Your task to perform on an android device: turn on sleep mode Image 0: 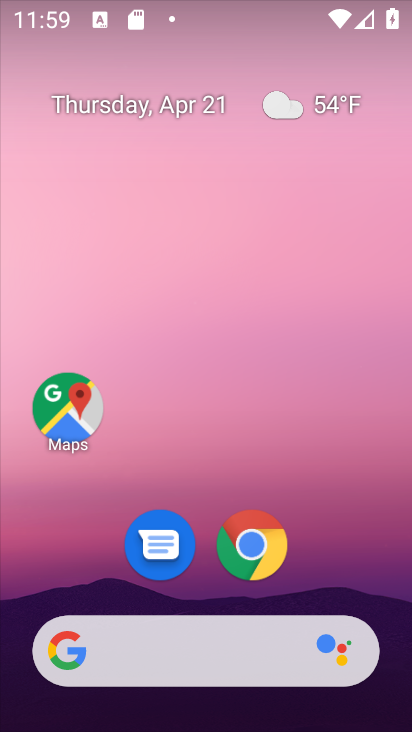
Step 0: drag from (286, 480) to (261, 84)
Your task to perform on an android device: turn on sleep mode Image 1: 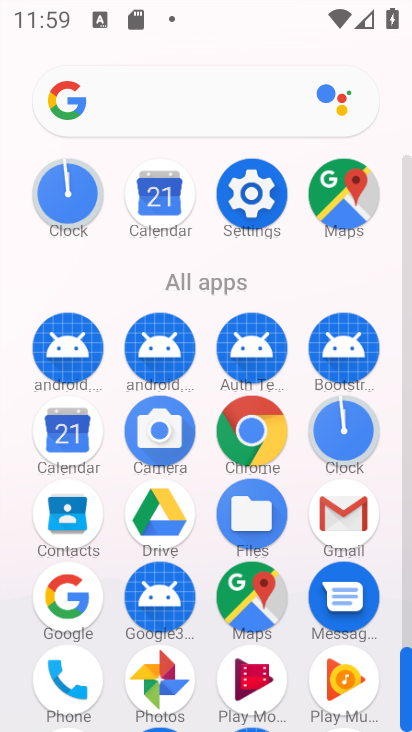
Step 1: click (267, 207)
Your task to perform on an android device: turn on sleep mode Image 2: 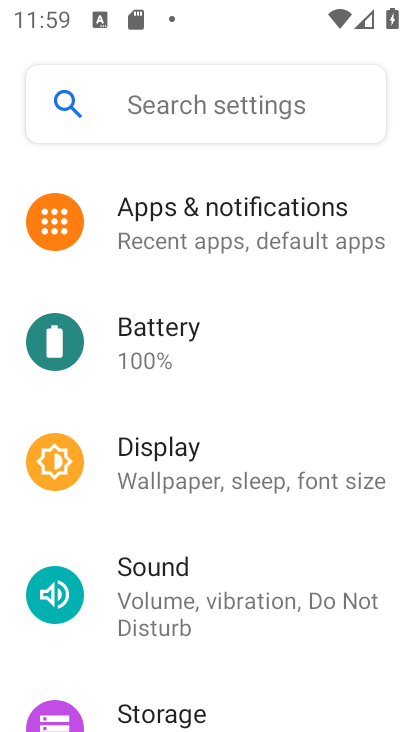
Step 2: task complete